Your task to perform on an android device: open wifi settings Image 0: 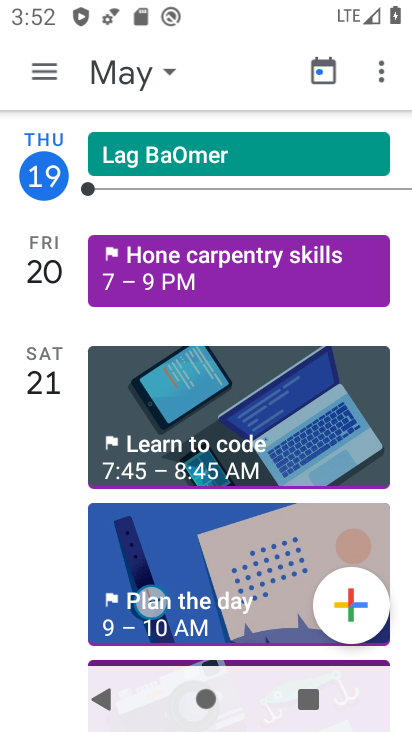
Step 0: press home button
Your task to perform on an android device: open wifi settings Image 1: 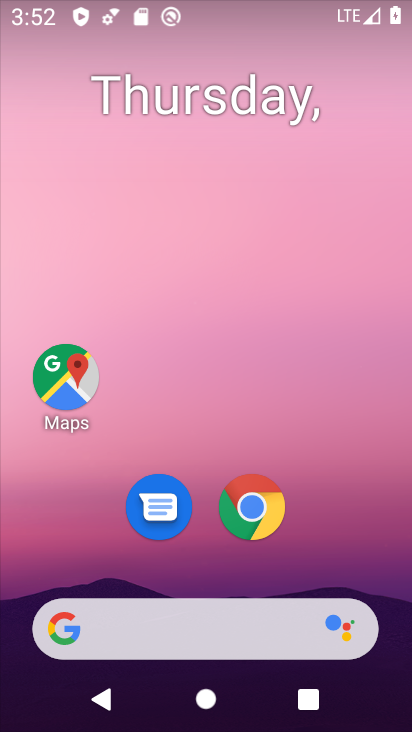
Step 1: drag from (323, 520) to (349, 596)
Your task to perform on an android device: open wifi settings Image 2: 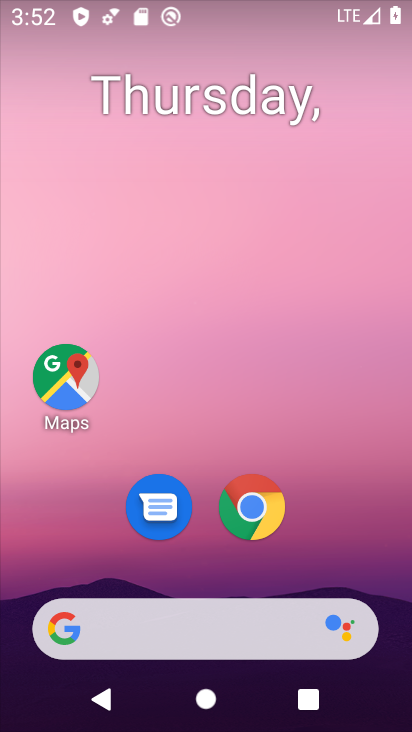
Step 2: drag from (298, 8) to (266, 504)
Your task to perform on an android device: open wifi settings Image 3: 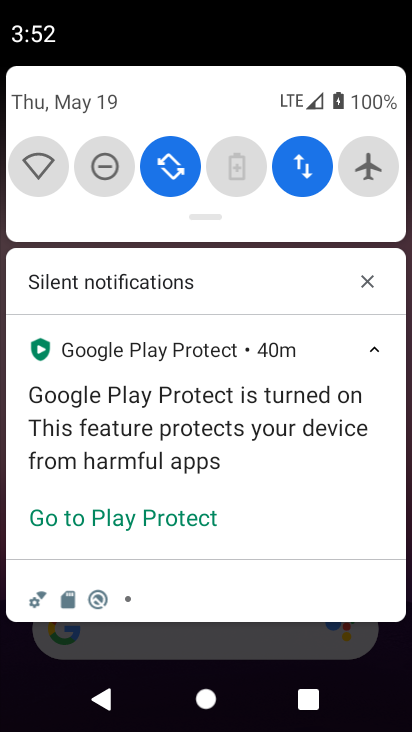
Step 3: click (43, 175)
Your task to perform on an android device: open wifi settings Image 4: 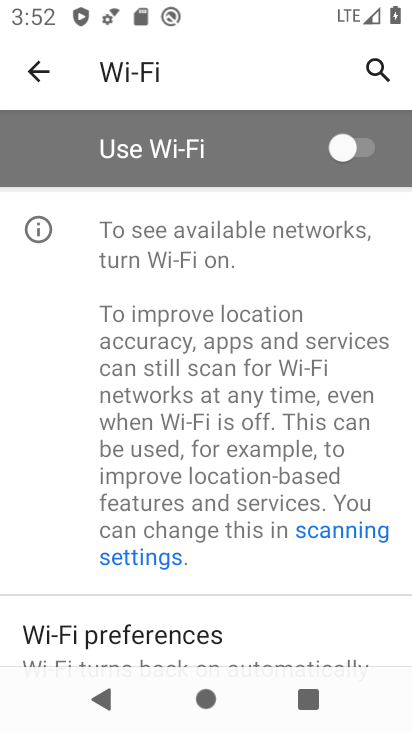
Step 4: task complete